Your task to perform on an android device: move a message to another label in the gmail app Image 0: 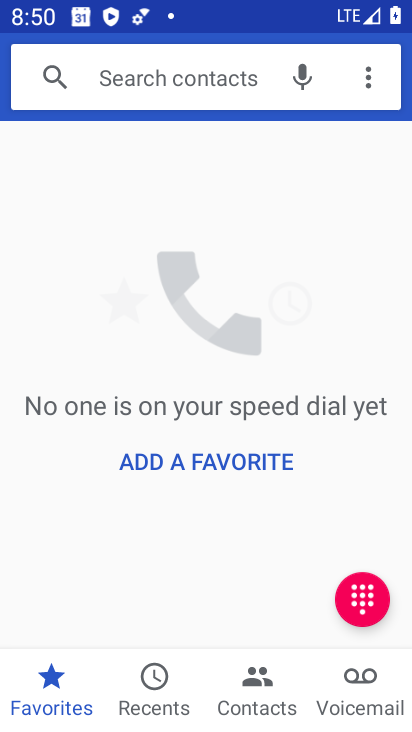
Step 0: press home button
Your task to perform on an android device: move a message to another label in the gmail app Image 1: 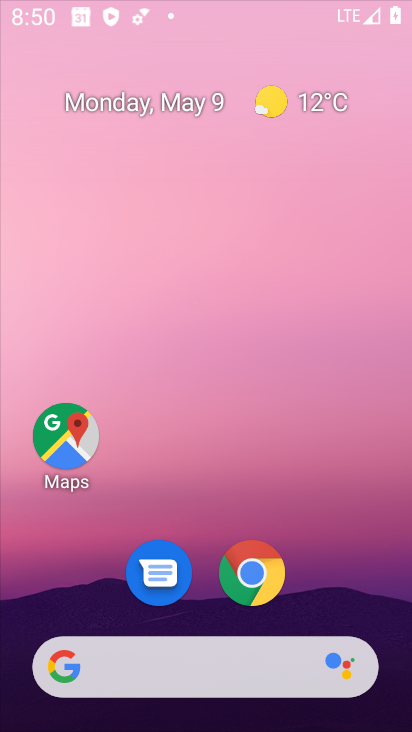
Step 1: press home button
Your task to perform on an android device: move a message to another label in the gmail app Image 2: 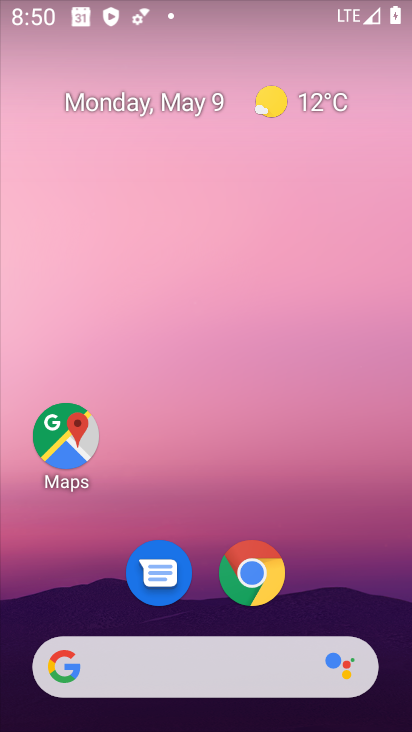
Step 2: drag from (360, 525) to (302, 166)
Your task to perform on an android device: move a message to another label in the gmail app Image 3: 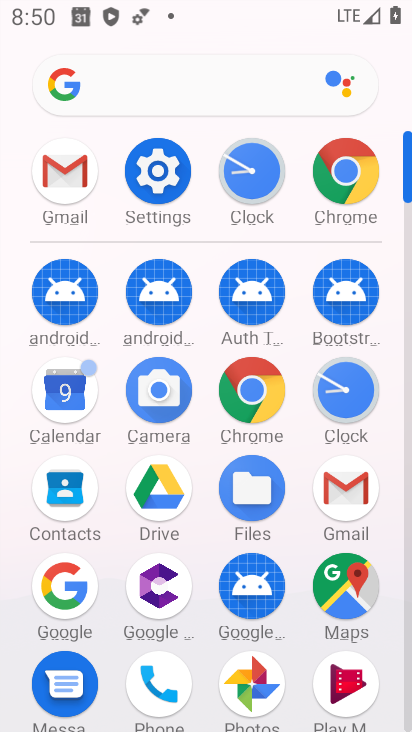
Step 3: click (21, 157)
Your task to perform on an android device: move a message to another label in the gmail app Image 4: 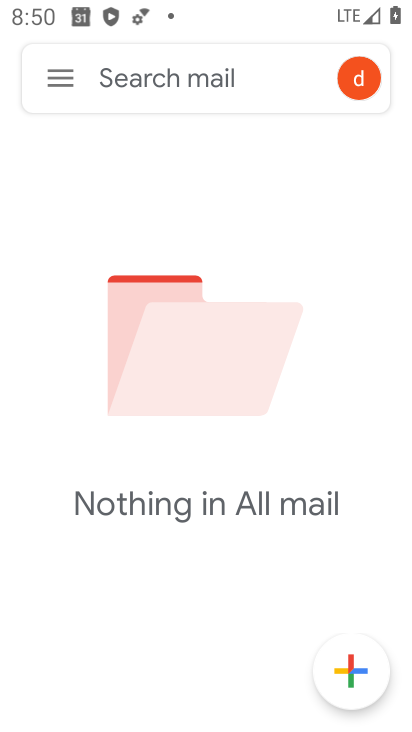
Step 4: task complete